Your task to perform on an android device: turn on sleep mode Image 0: 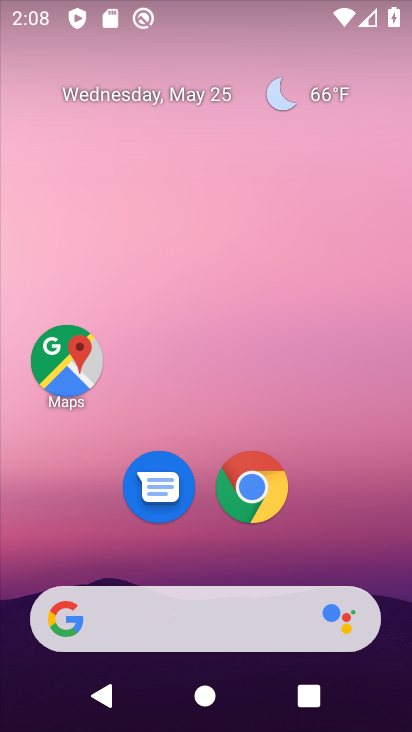
Step 0: drag from (175, 555) to (236, 125)
Your task to perform on an android device: turn on sleep mode Image 1: 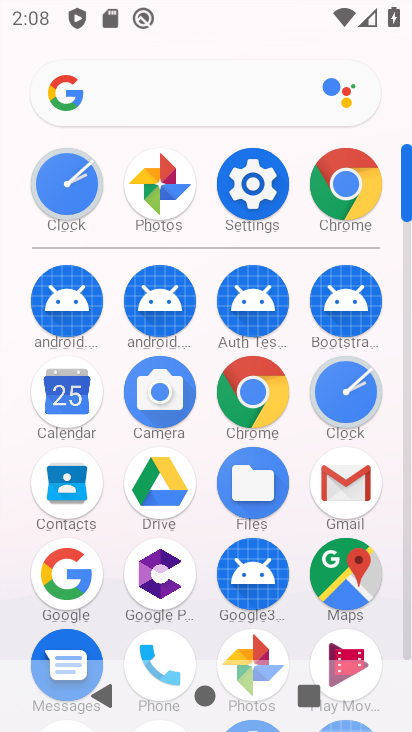
Step 1: click (256, 199)
Your task to perform on an android device: turn on sleep mode Image 2: 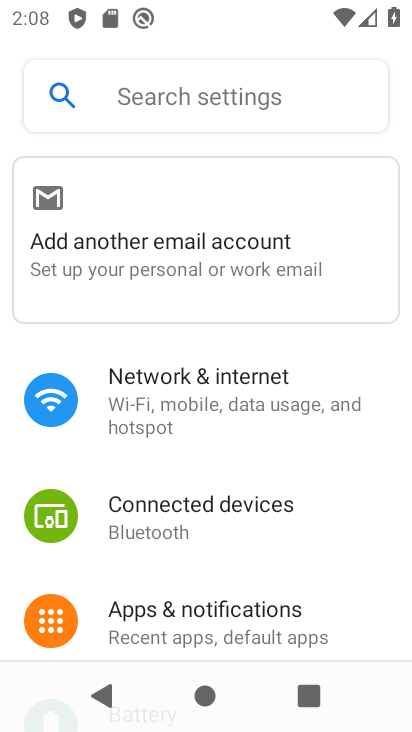
Step 2: task complete